Your task to perform on an android device: turn off priority inbox in the gmail app Image 0: 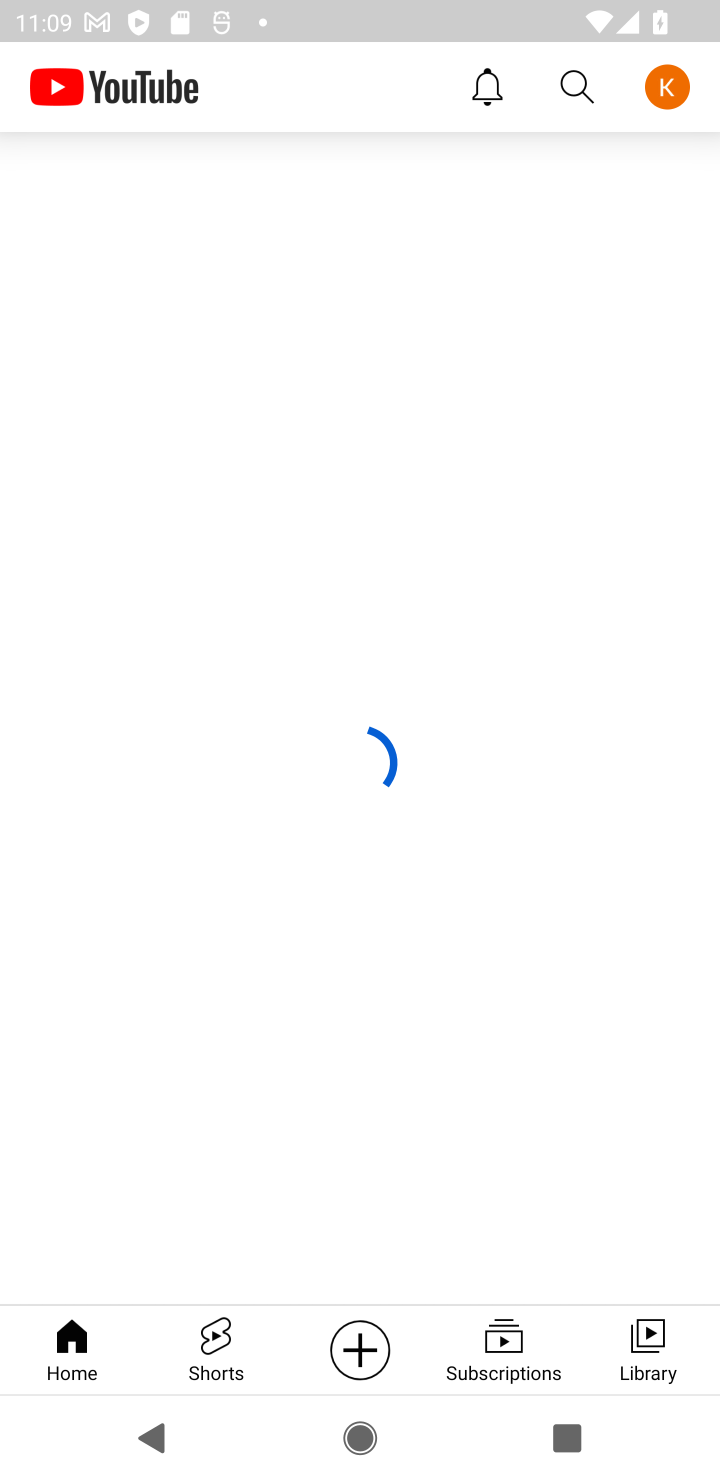
Step 0: press home button
Your task to perform on an android device: turn off priority inbox in the gmail app Image 1: 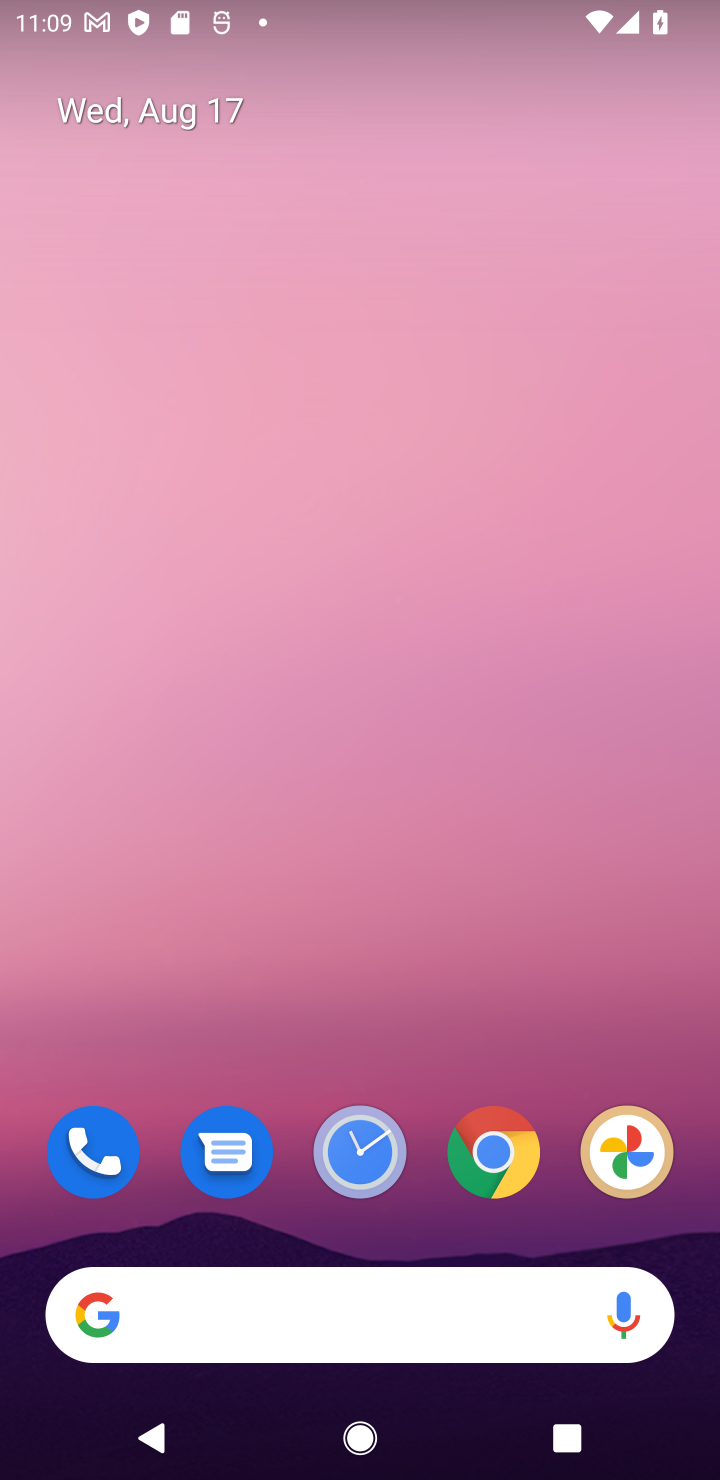
Step 1: drag from (562, 1200) to (283, 162)
Your task to perform on an android device: turn off priority inbox in the gmail app Image 2: 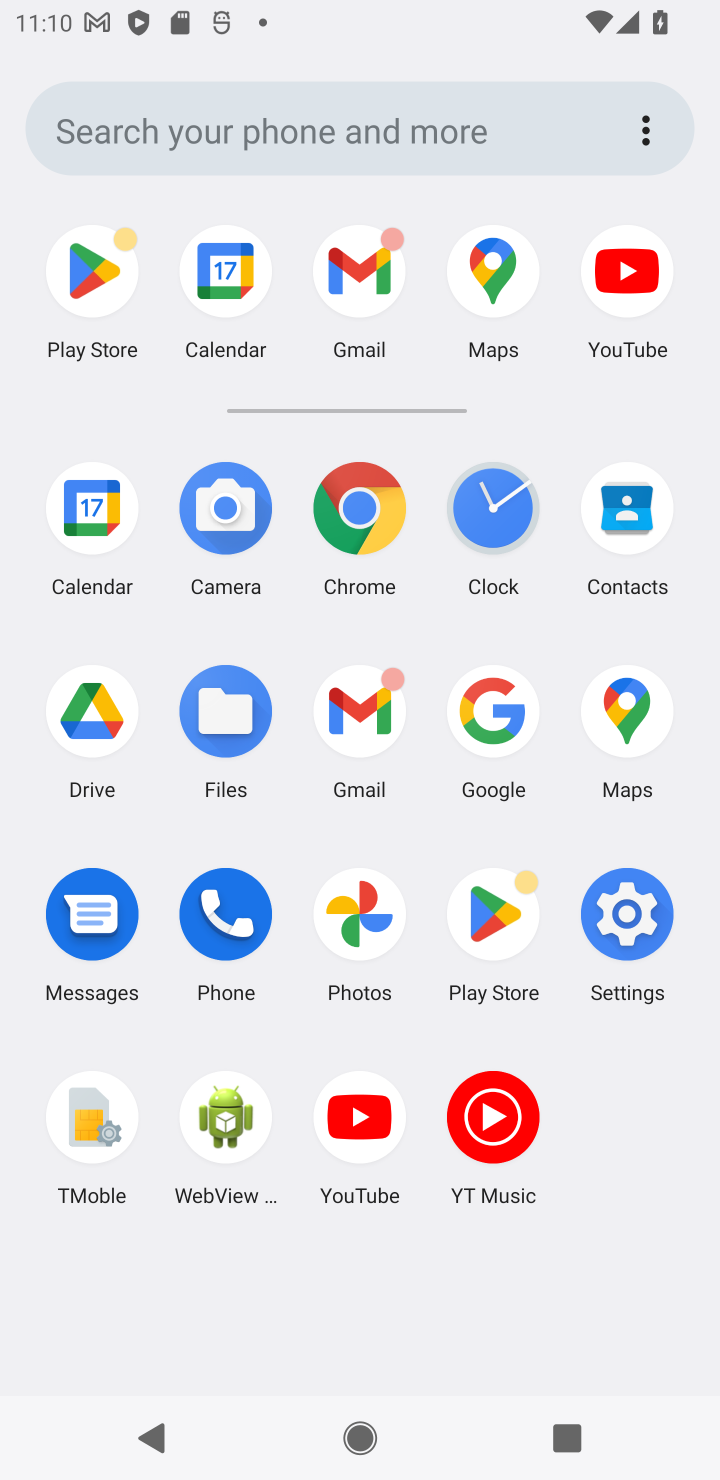
Step 2: click (350, 704)
Your task to perform on an android device: turn off priority inbox in the gmail app Image 3: 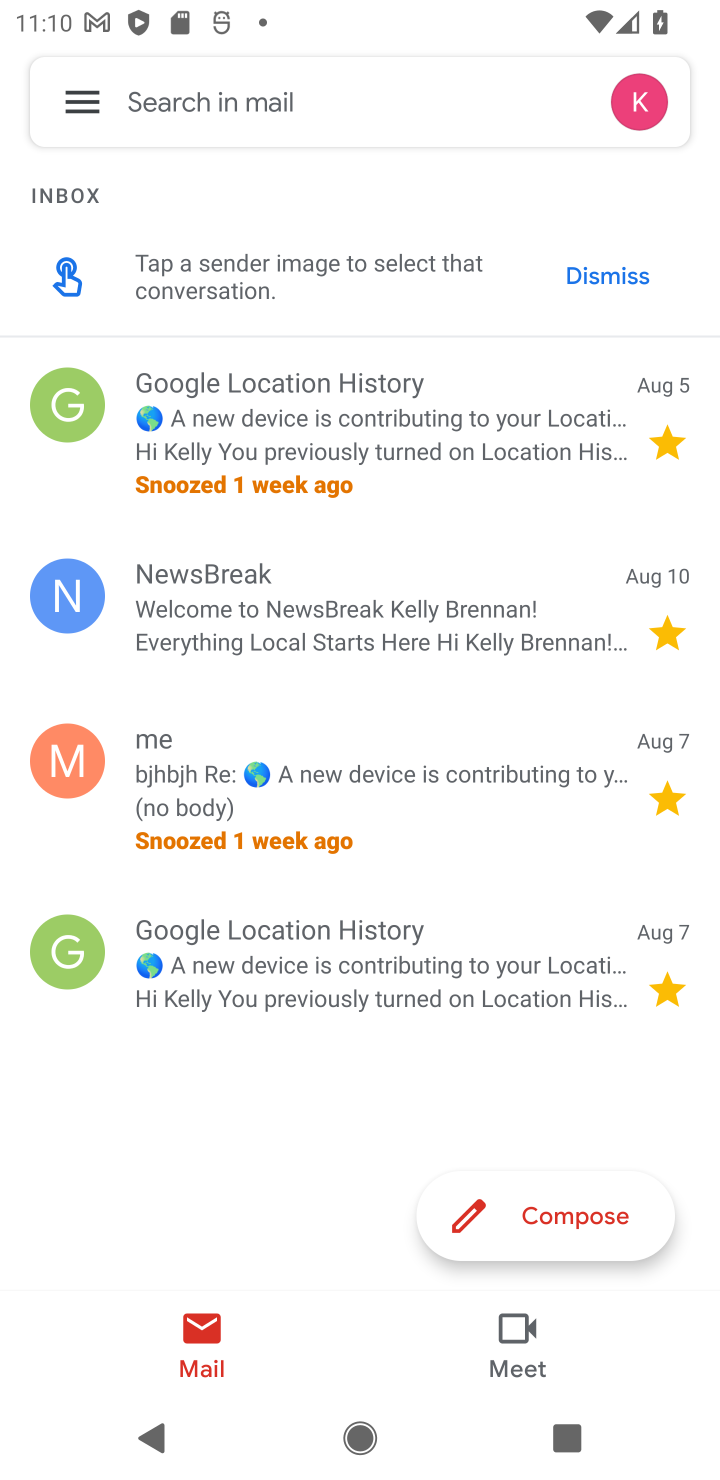
Step 3: click (67, 102)
Your task to perform on an android device: turn off priority inbox in the gmail app Image 4: 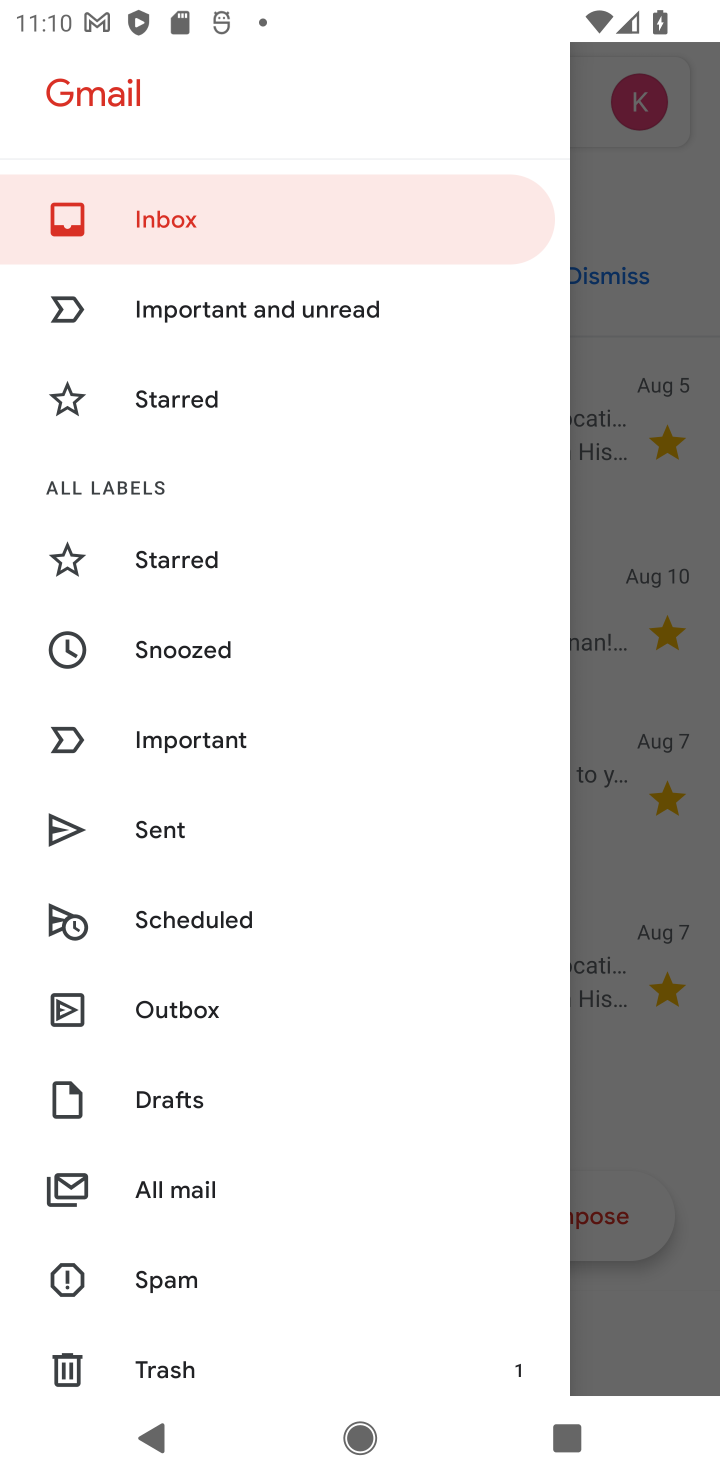
Step 4: drag from (209, 1319) to (339, 123)
Your task to perform on an android device: turn off priority inbox in the gmail app Image 5: 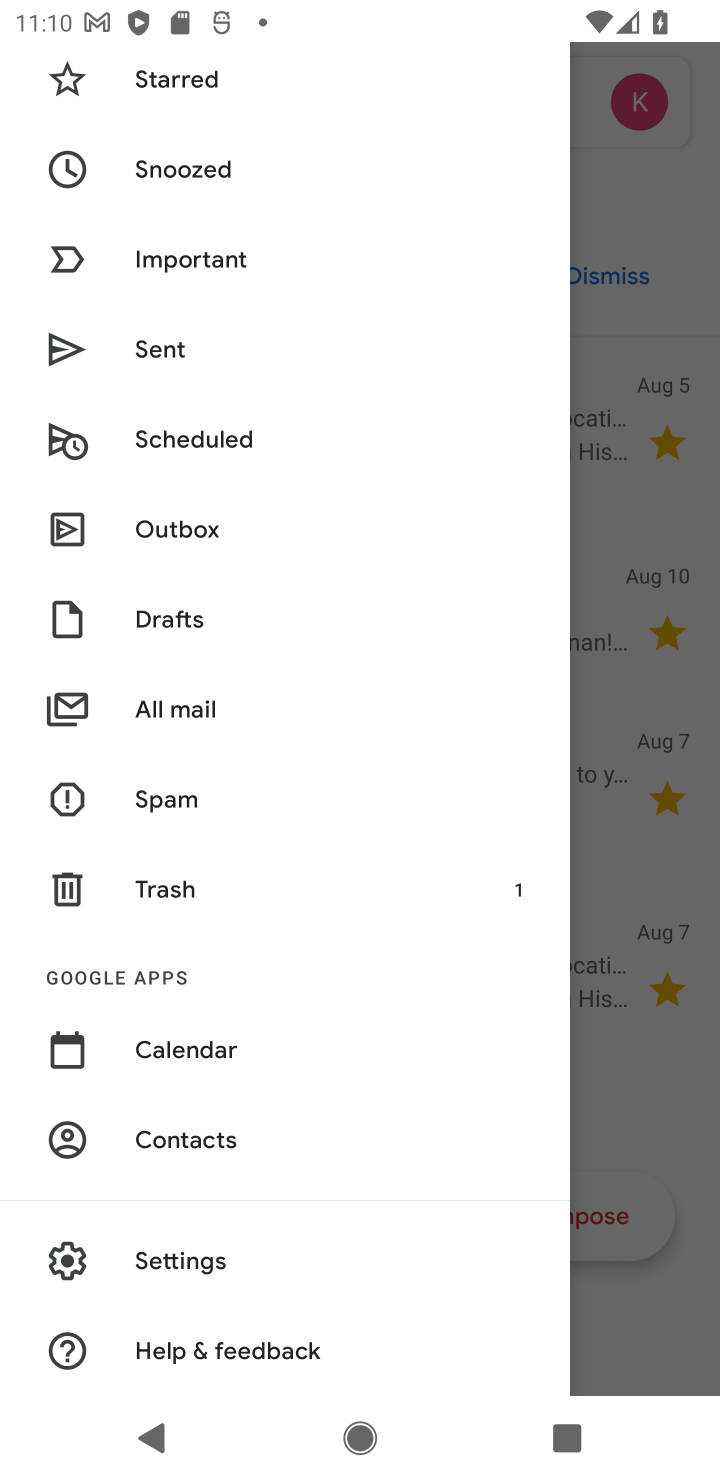
Step 5: click (175, 1257)
Your task to perform on an android device: turn off priority inbox in the gmail app Image 6: 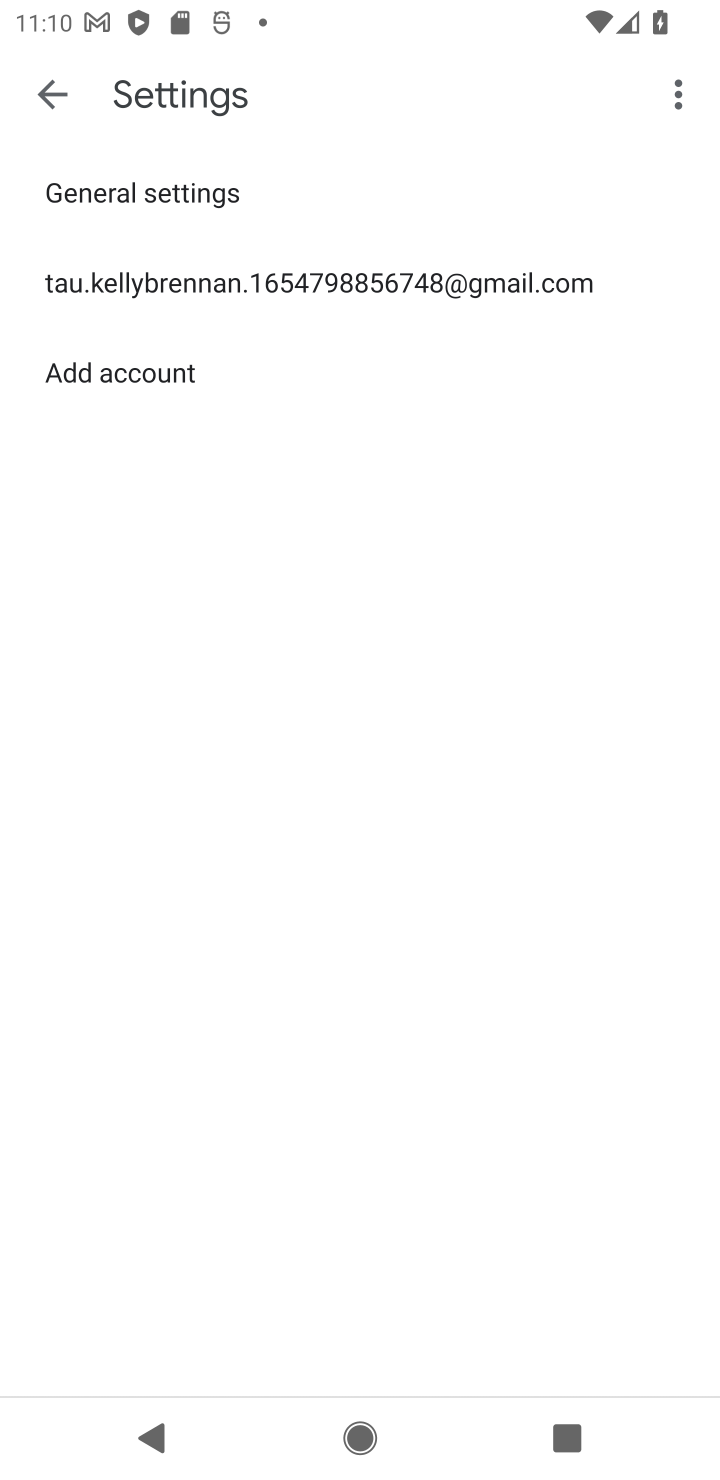
Step 6: click (448, 285)
Your task to perform on an android device: turn off priority inbox in the gmail app Image 7: 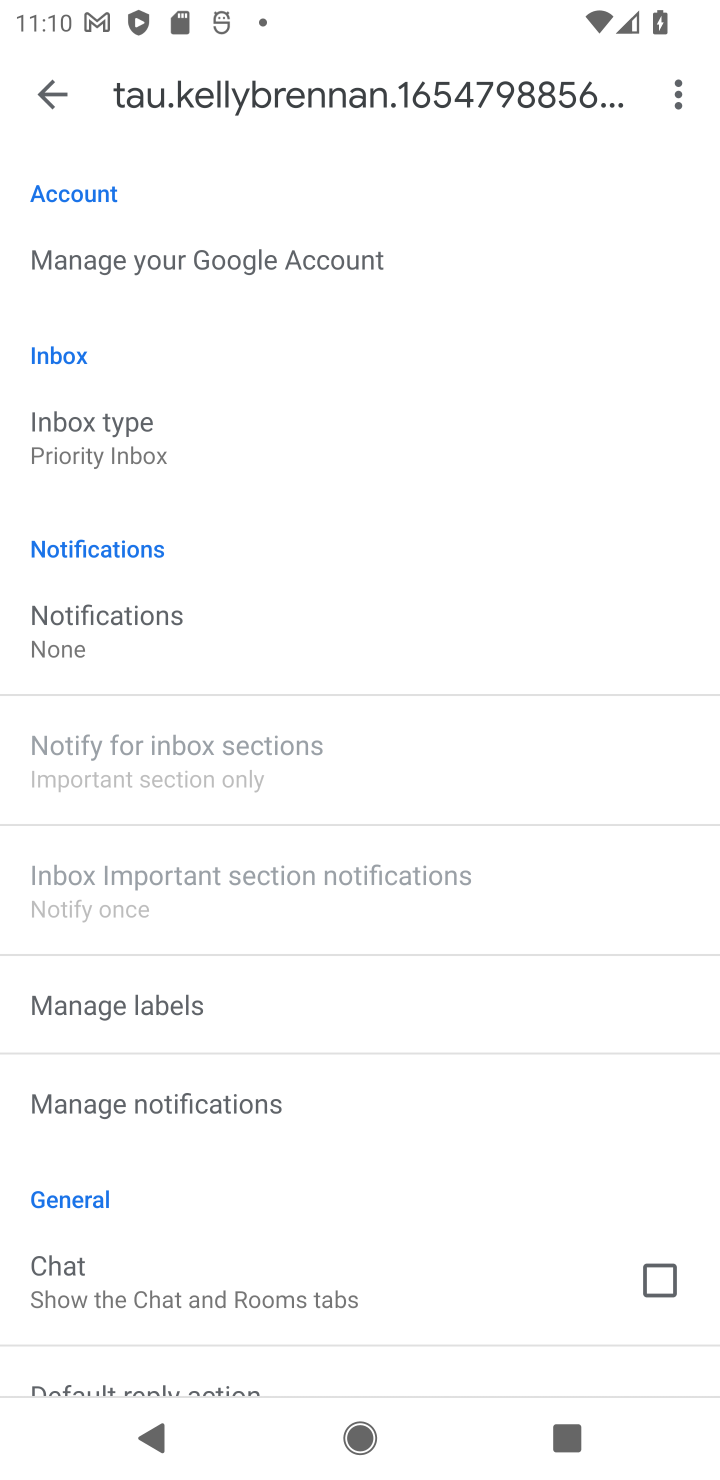
Step 7: click (112, 439)
Your task to perform on an android device: turn off priority inbox in the gmail app Image 8: 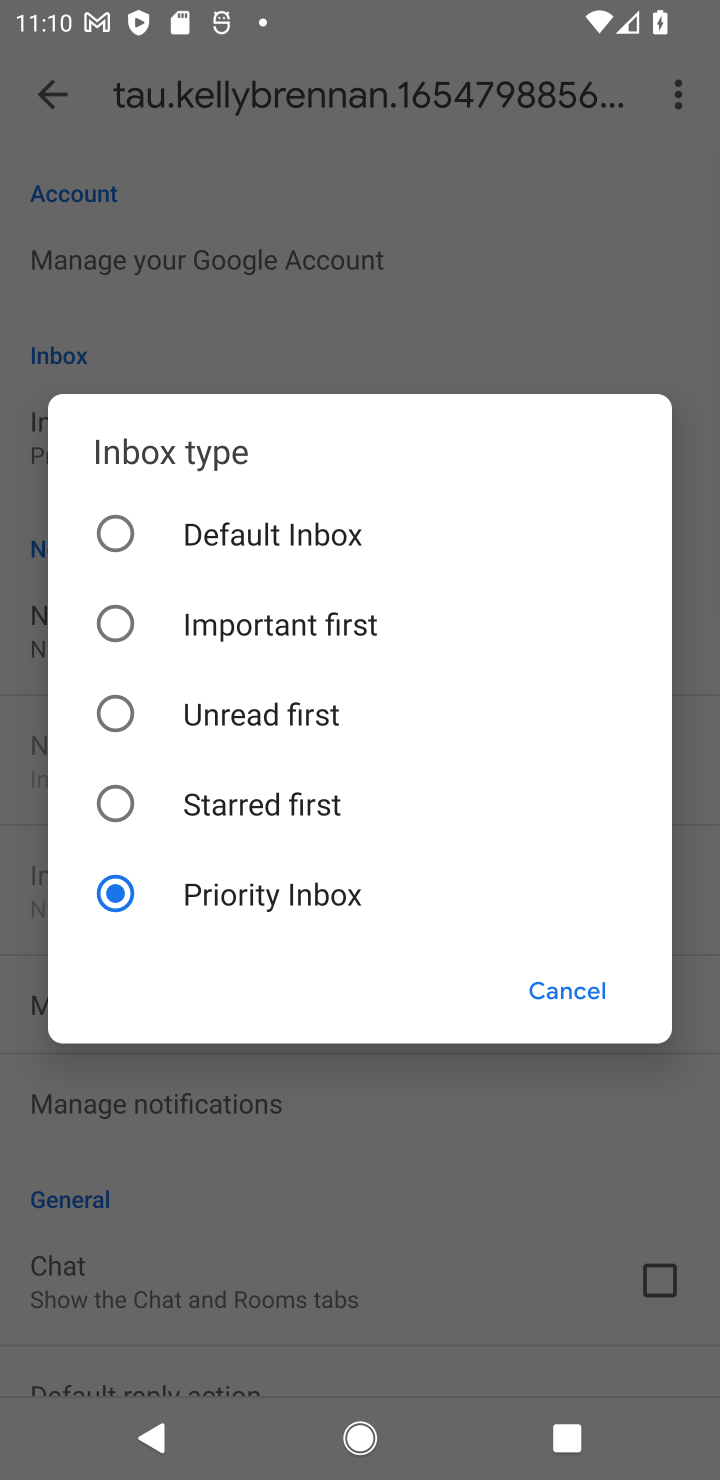
Step 8: click (309, 532)
Your task to perform on an android device: turn off priority inbox in the gmail app Image 9: 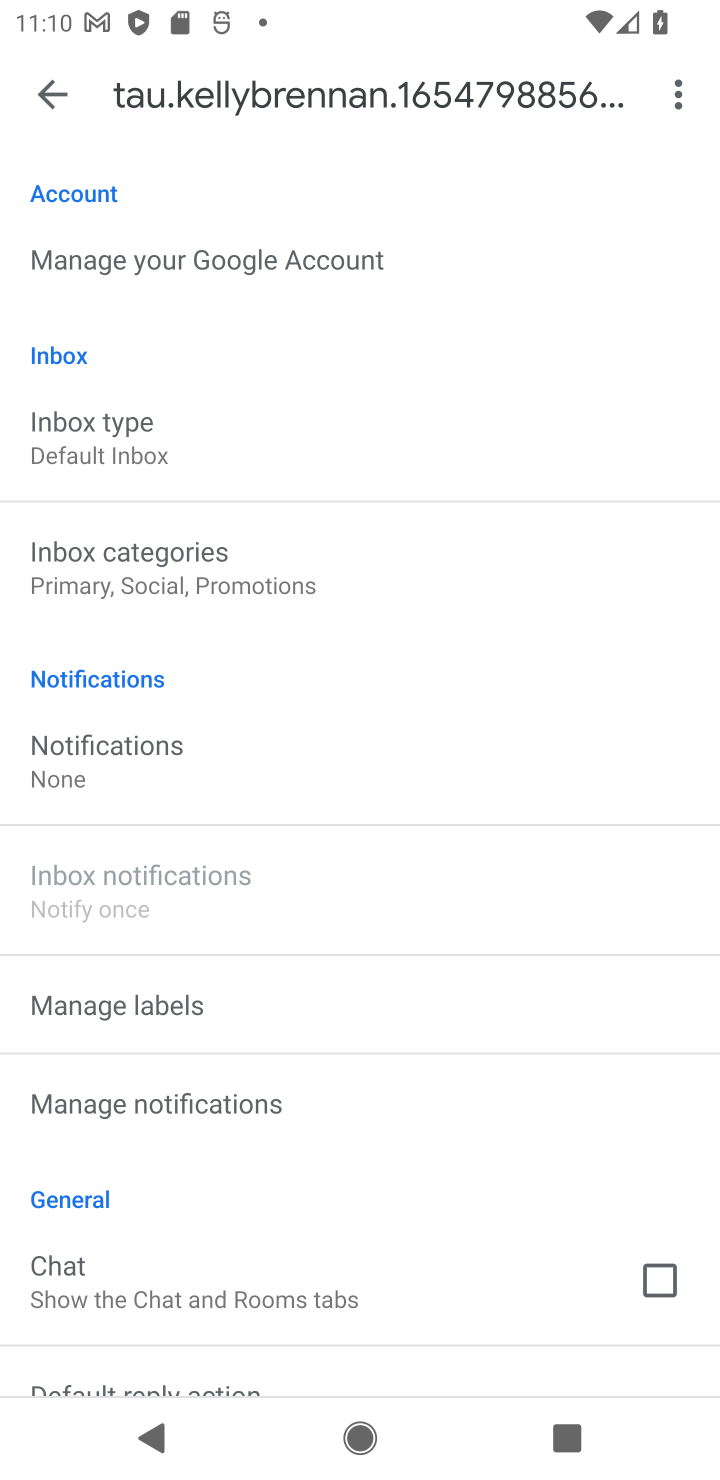
Step 9: task complete